Your task to perform on an android device: check data usage Image 0: 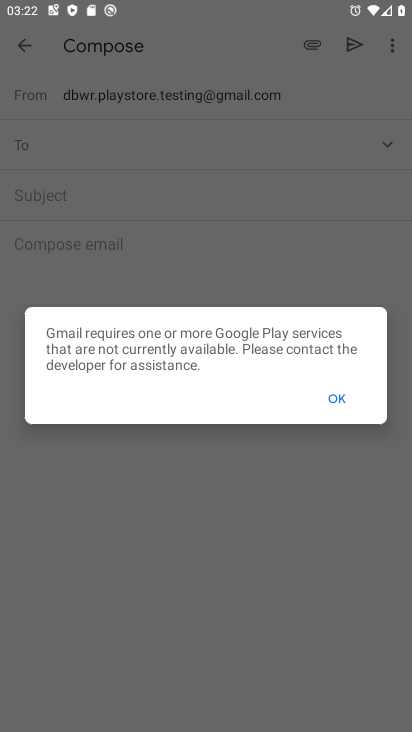
Step 0: press back button
Your task to perform on an android device: check data usage Image 1: 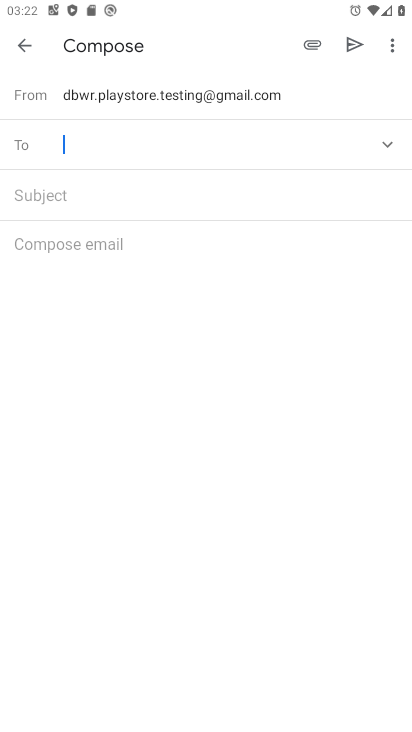
Step 1: press back button
Your task to perform on an android device: check data usage Image 2: 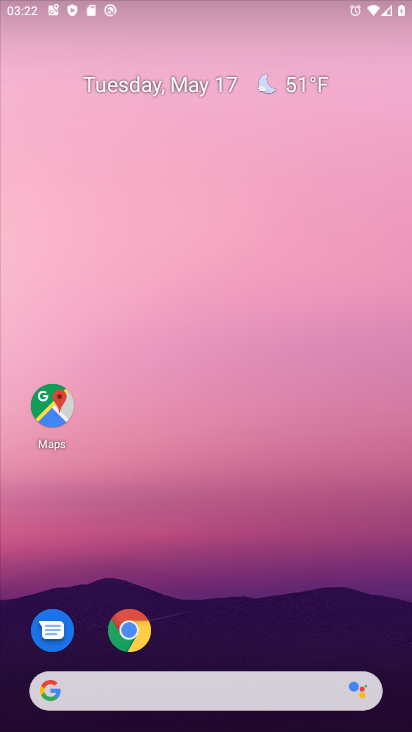
Step 2: drag from (245, 609) to (299, 12)
Your task to perform on an android device: check data usage Image 3: 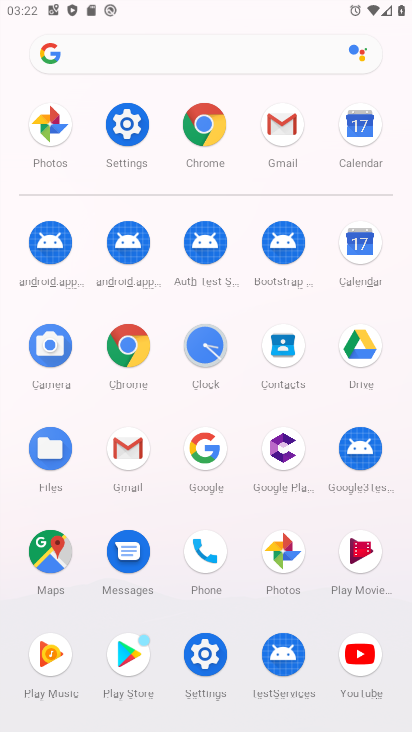
Step 3: click (119, 132)
Your task to perform on an android device: check data usage Image 4: 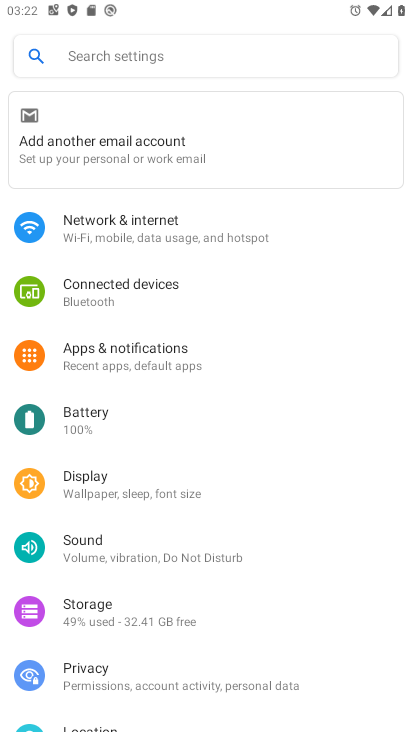
Step 4: click (168, 231)
Your task to perform on an android device: check data usage Image 5: 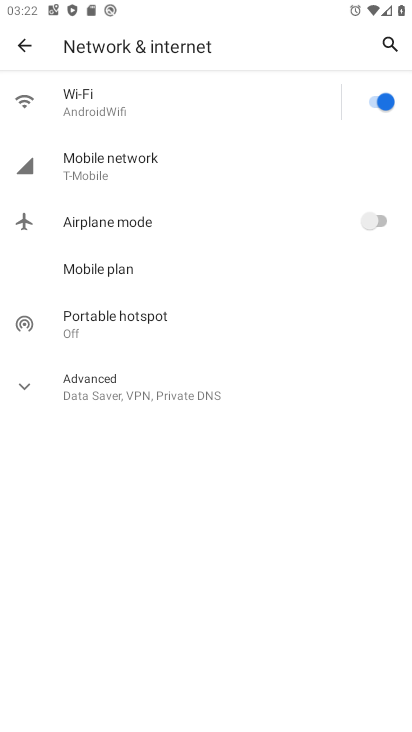
Step 5: click (90, 178)
Your task to perform on an android device: check data usage Image 6: 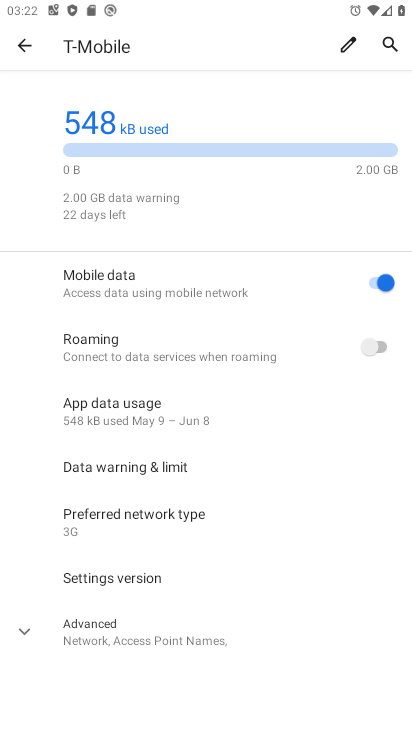
Step 6: click (122, 415)
Your task to perform on an android device: check data usage Image 7: 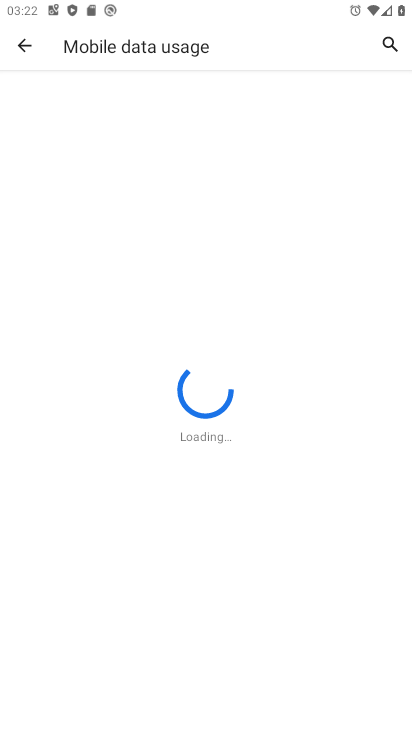
Step 7: task complete